Your task to perform on an android device: Show me recent news Image 0: 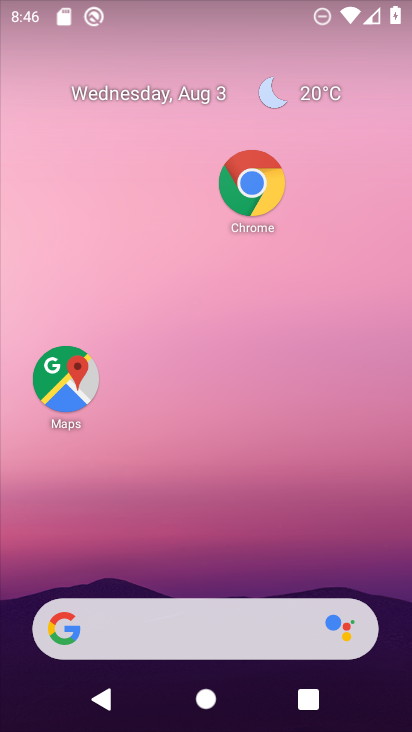
Step 0: drag from (170, 551) to (180, 84)
Your task to perform on an android device: Show me recent news Image 1: 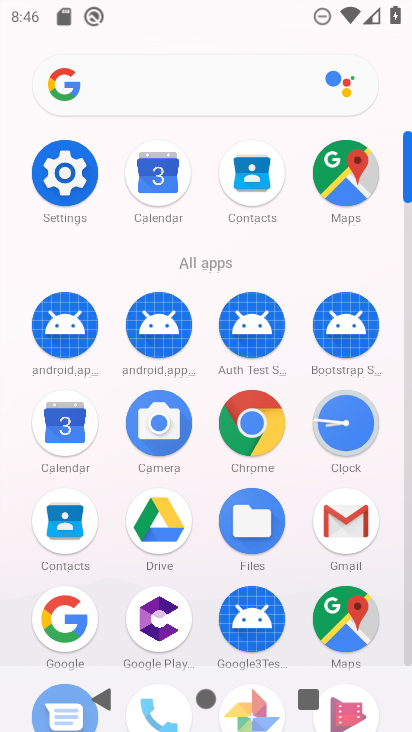
Step 1: click (69, 619)
Your task to perform on an android device: Show me recent news Image 2: 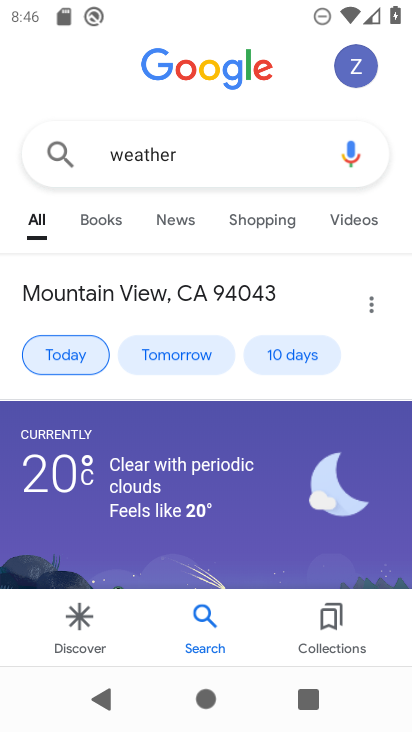
Step 2: click (196, 142)
Your task to perform on an android device: Show me recent news Image 3: 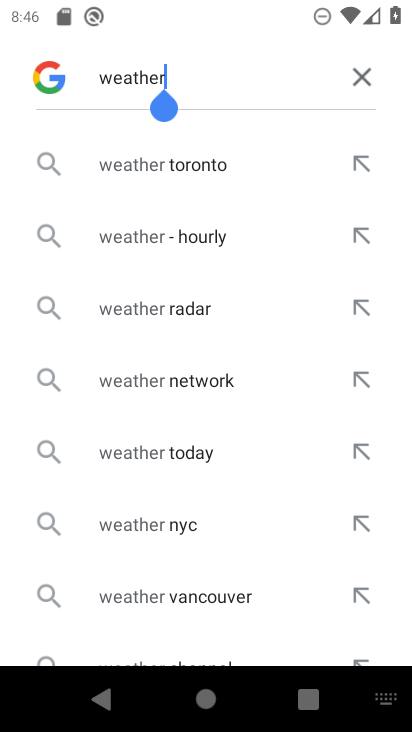
Step 3: click (363, 76)
Your task to perform on an android device: Show me recent news Image 4: 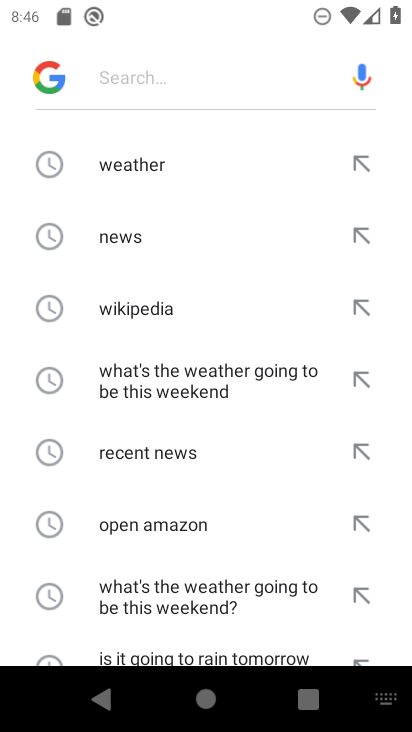
Step 4: click (172, 458)
Your task to perform on an android device: Show me recent news Image 5: 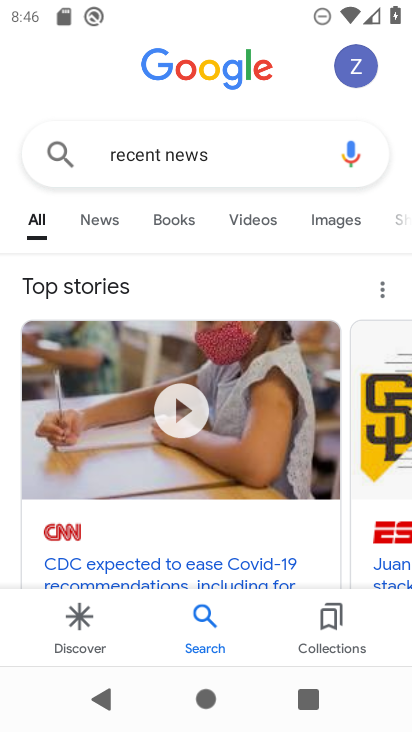
Step 5: click (106, 214)
Your task to perform on an android device: Show me recent news Image 6: 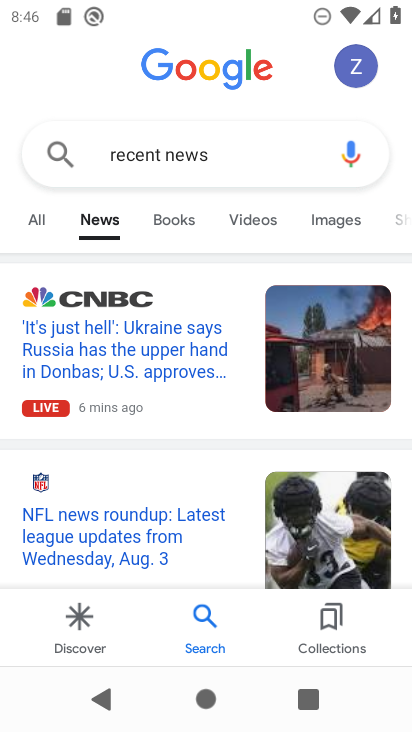
Step 6: task complete